Your task to perform on an android device: turn off priority inbox in the gmail app Image 0: 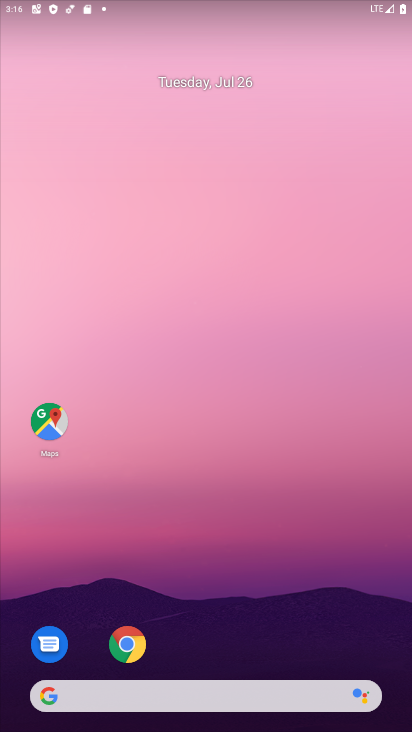
Step 0: drag from (199, 687) to (351, 4)
Your task to perform on an android device: turn off priority inbox in the gmail app Image 1: 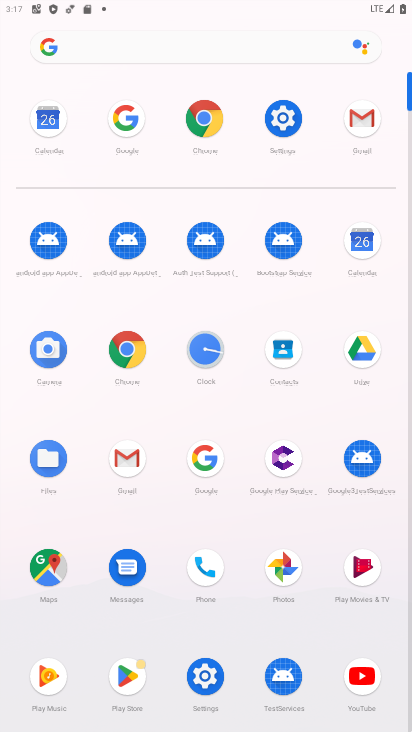
Step 1: click (362, 128)
Your task to perform on an android device: turn off priority inbox in the gmail app Image 2: 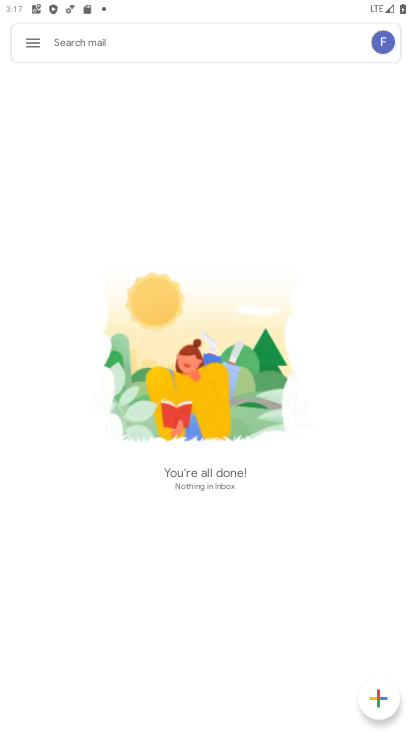
Step 2: click (33, 37)
Your task to perform on an android device: turn off priority inbox in the gmail app Image 3: 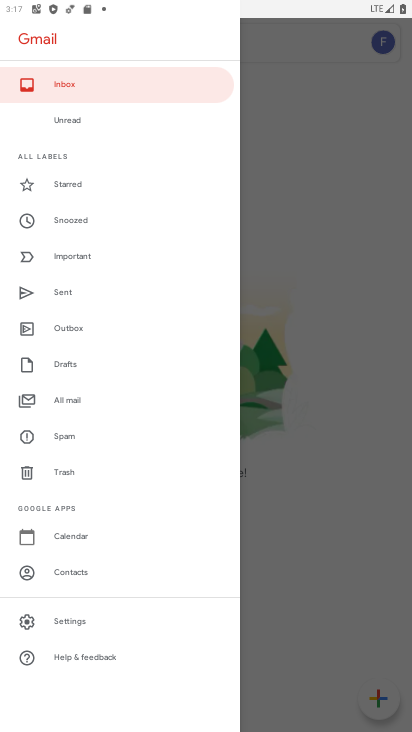
Step 3: click (49, 618)
Your task to perform on an android device: turn off priority inbox in the gmail app Image 4: 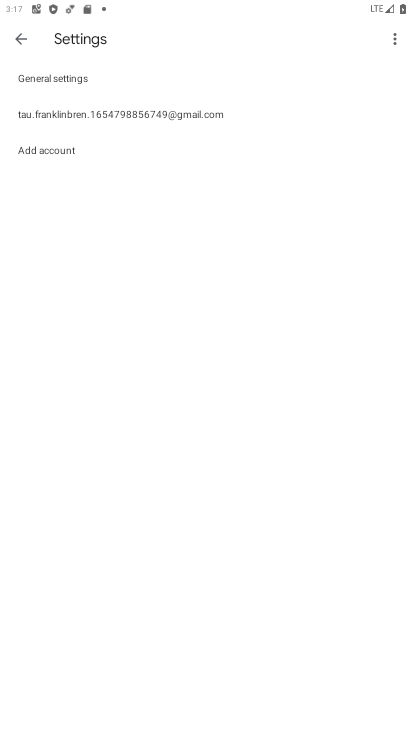
Step 4: click (85, 110)
Your task to perform on an android device: turn off priority inbox in the gmail app Image 5: 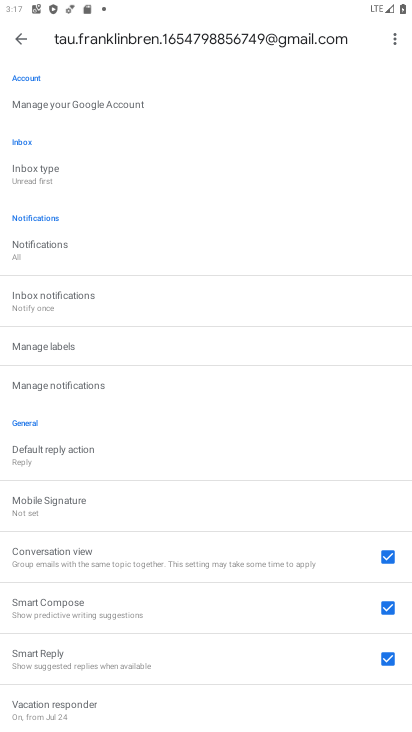
Step 5: click (25, 168)
Your task to perform on an android device: turn off priority inbox in the gmail app Image 6: 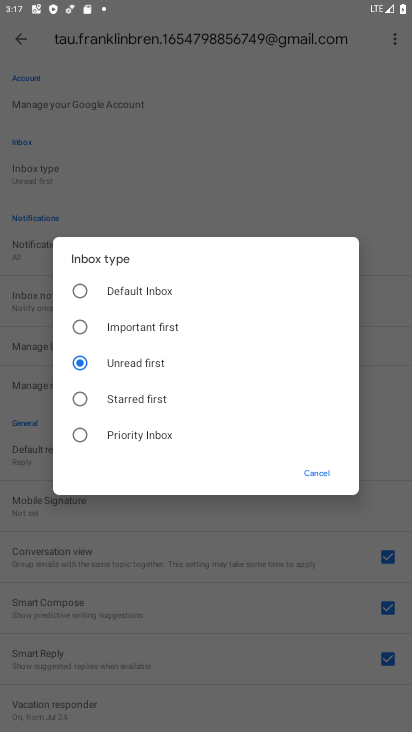
Step 6: click (317, 468)
Your task to perform on an android device: turn off priority inbox in the gmail app Image 7: 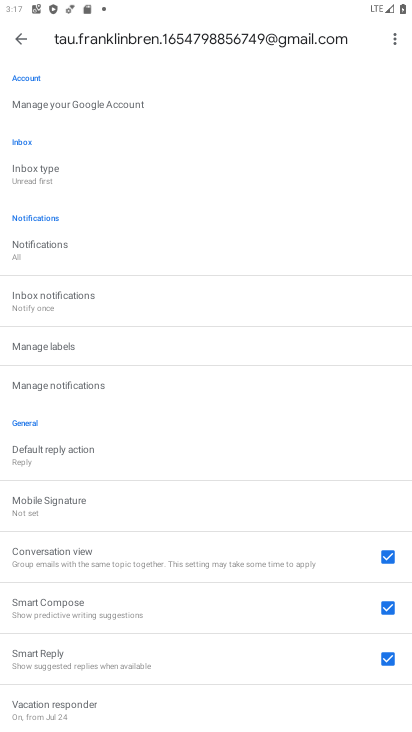
Step 7: task complete